Your task to perform on an android device: Open Android settings Image 0: 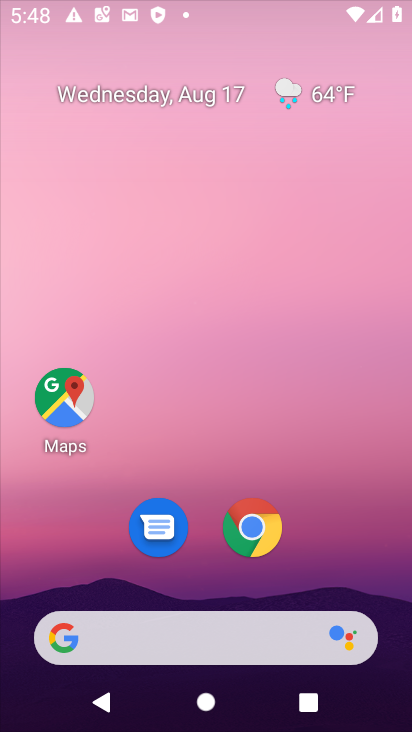
Step 0: drag from (189, 565) to (189, 219)
Your task to perform on an android device: Open Android settings Image 1: 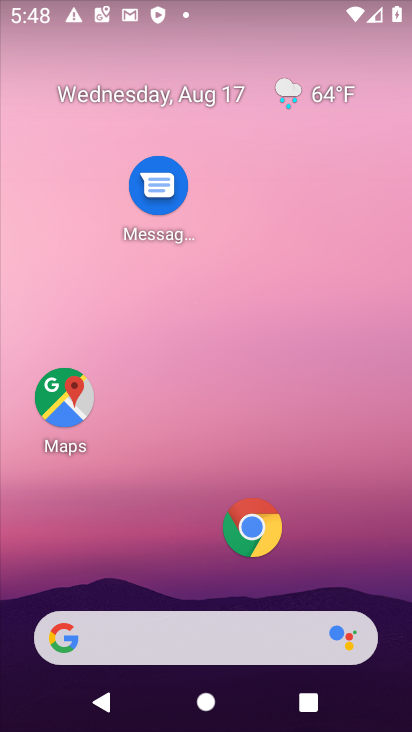
Step 1: drag from (180, 575) to (180, 242)
Your task to perform on an android device: Open Android settings Image 2: 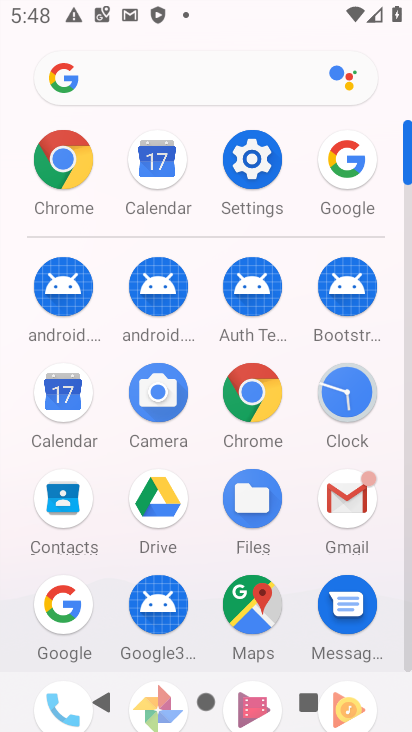
Step 2: click (255, 176)
Your task to perform on an android device: Open Android settings Image 3: 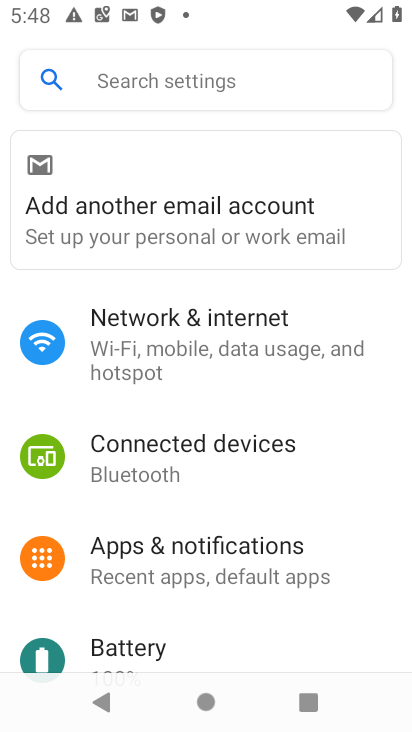
Step 3: task complete